Your task to perform on an android device: Open calendar and show me the second week of next month Image 0: 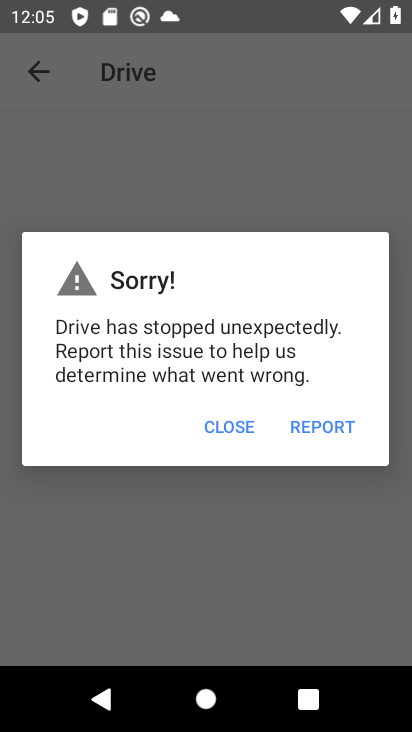
Step 0: press home button
Your task to perform on an android device: Open calendar and show me the second week of next month Image 1: 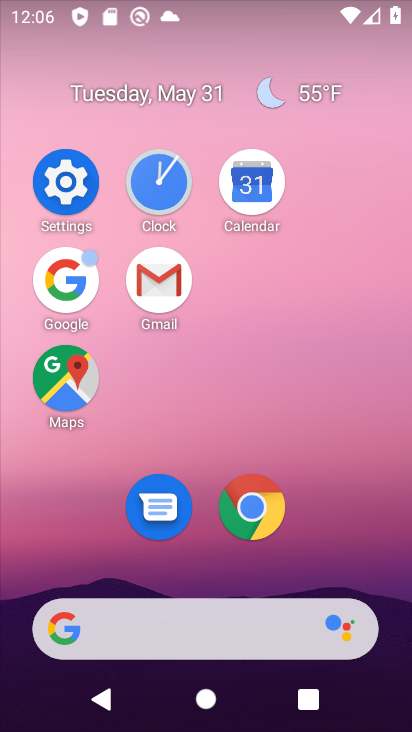
Step 1: click (260, 195)
Your task to perform on an android device: Open calendar and show me the second week of next month Image 2: 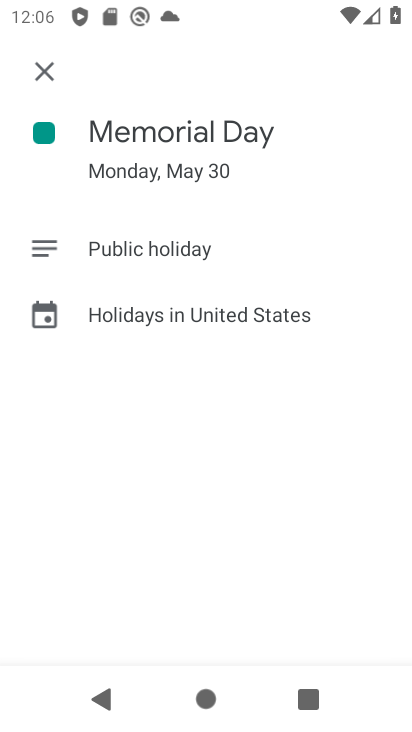
Step 2: click (46, 70)
Your task to perform on an android device: Open calendar and show me the second week of next month Image 3: 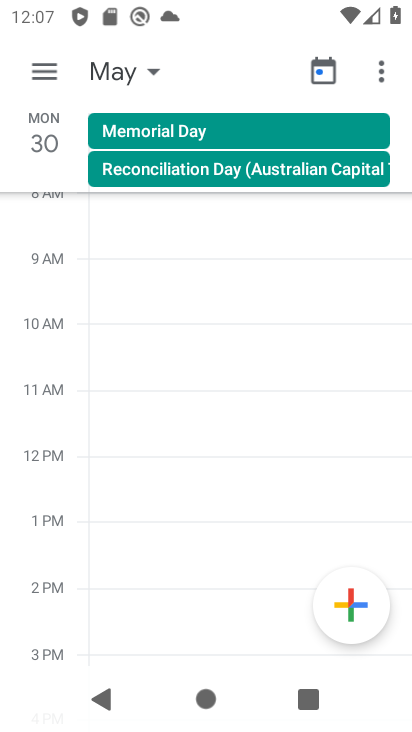
Step 3: press home button
Your task to perform on an android device: Open calendar and show me the second week of next month Image 4: 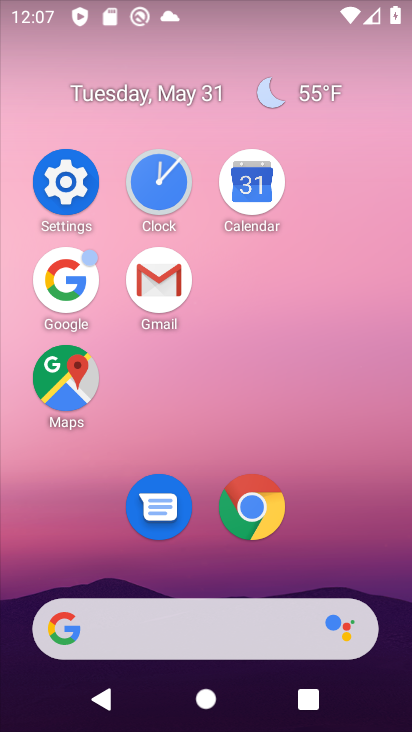
Step 4: click (248, 179)
Your task to perform on an android device: Open calendar and show me the second week of next month Image 5: 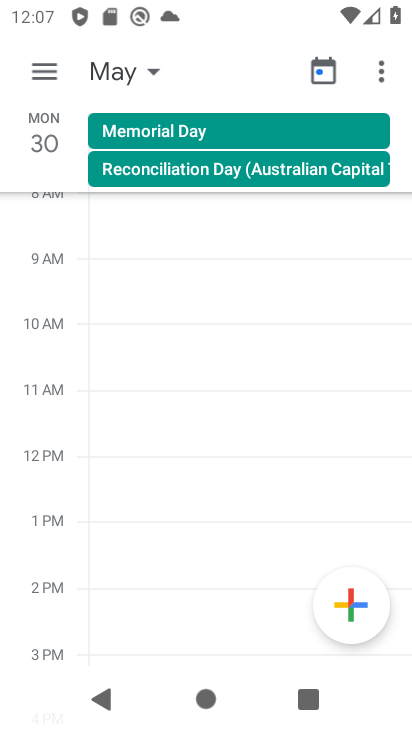
Step 5: click (151, 82)
Your task to perform on an android device: Open calendar and show me the second week of next month Image 6: 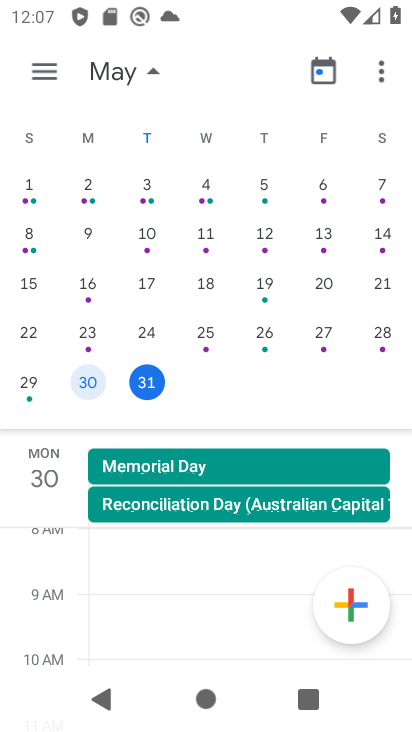
Step 6: drag from (355, 207) to (29, 191)
Your task to perform on an android device: Open calendar and show me the second week of next month Image 7: 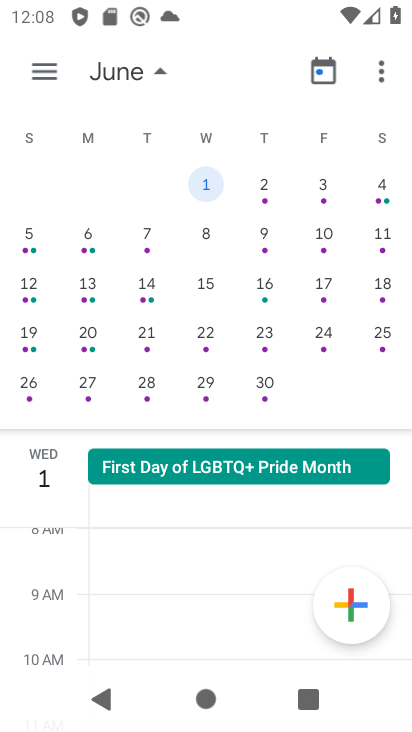
Step 7: click (31, 71)
Your task to perform on an android device: Open calendar and show me the second week of next month Image 8: 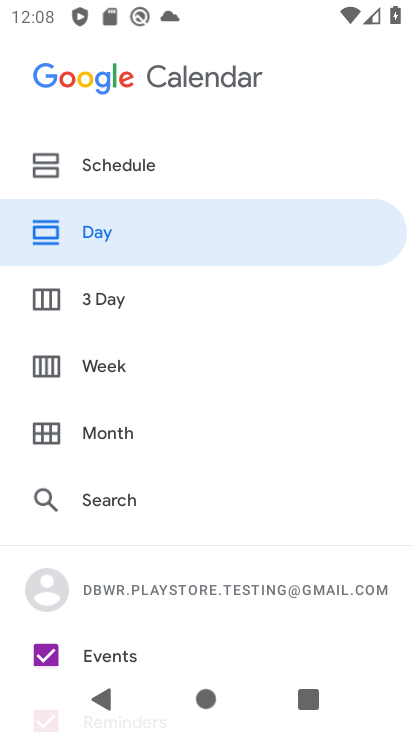
Step 8: click (139, 366)
Your task to perform on an android device: Open calendar and show me the second week of next month Image 9: 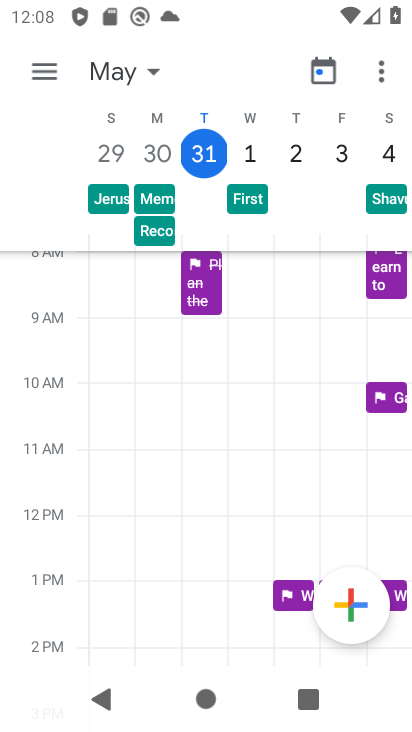
Step 9: task complete